Your task to perform on an android device: Open location settings Image 0: 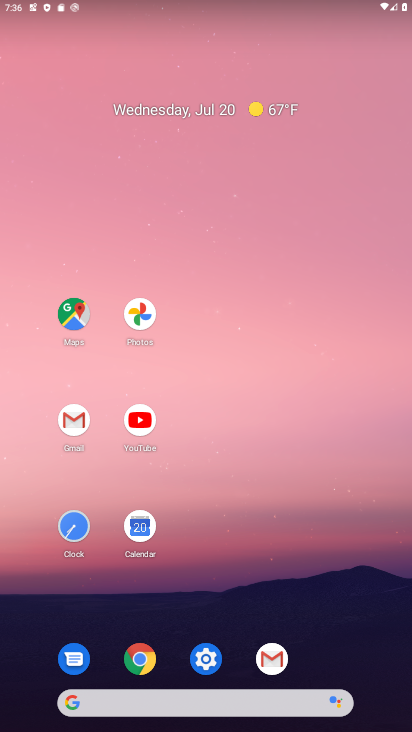
Step 0: click (208, 654)
Your task to perform on an android device: Open location settings Image 1: 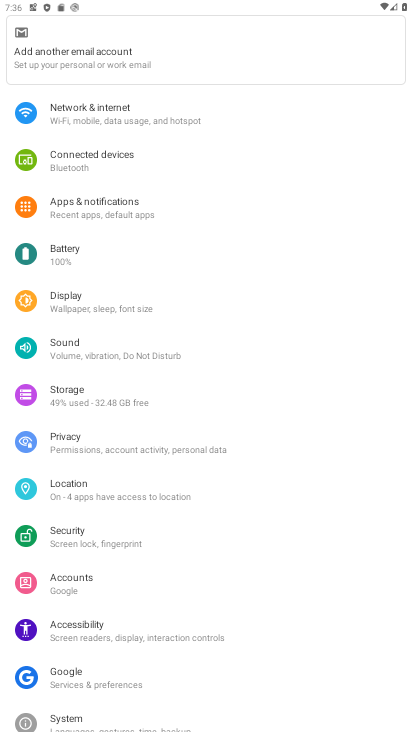
Step 1: click (65, 482)
Your task to perform on an android device: Open location settings Image 2: 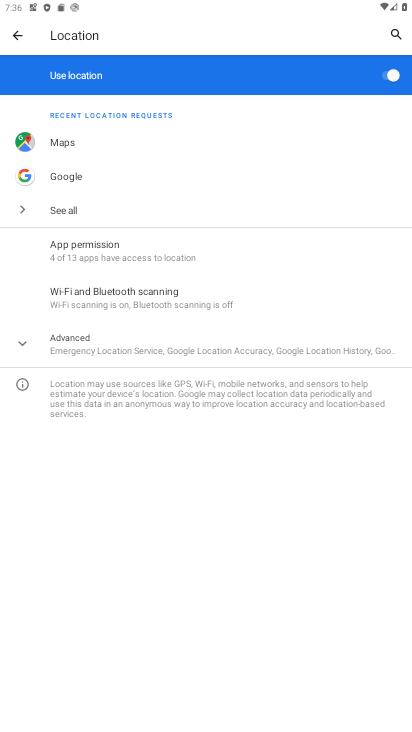
Step 2: task complete